Your task to perform on an android device: Open the web browser Image 0: 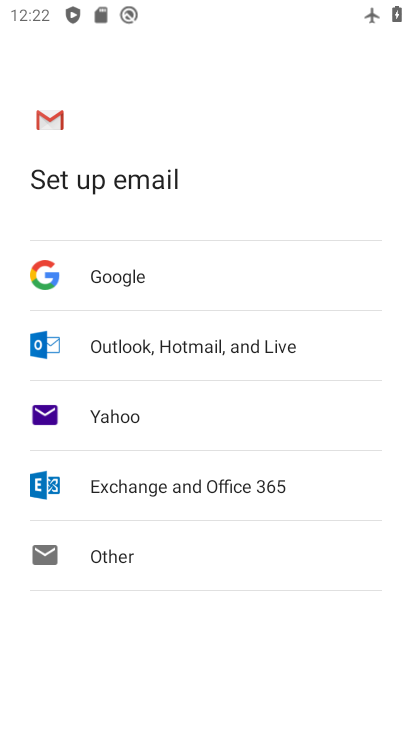
Step 0: press home button
Your task to perform on an android device: Open the web browser Image 1: 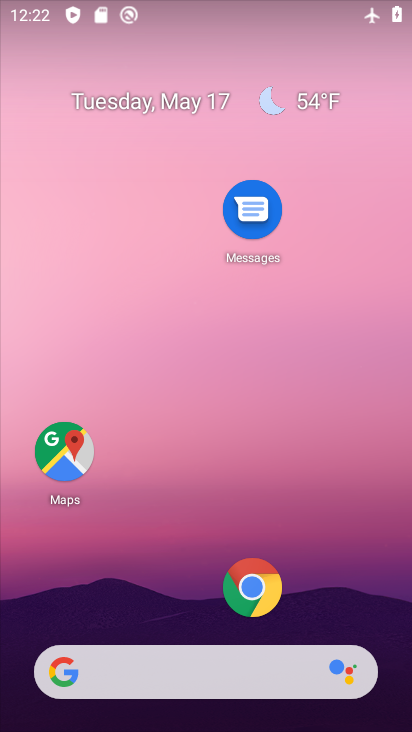
Step 1: click (242, 580)
Your task to perform on an android device: Open the web browser Image 2: 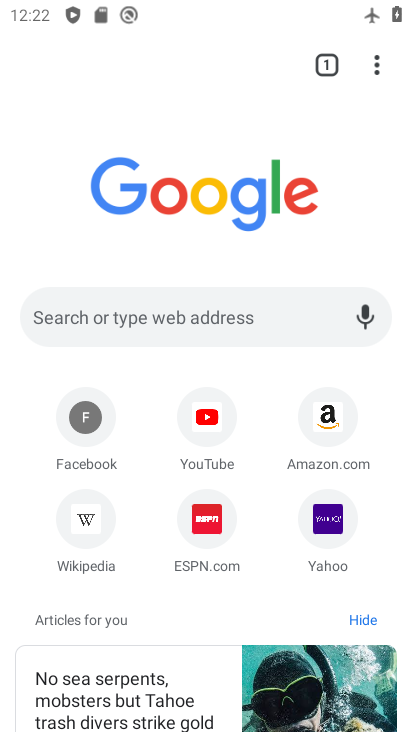
Step 2: task complete